Your task to perform on an android device: Open Google Chrome and open the bookmarks view Image 0: 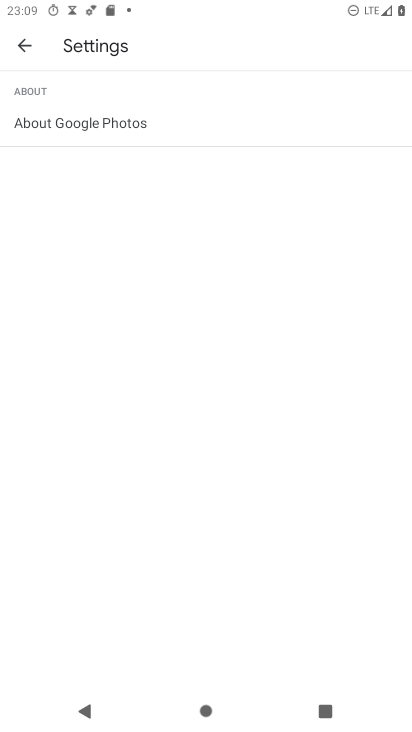
Step 0: press back button
Your task to perform on an android device: Open Google Chrome and open the bookmarks view Image 1: 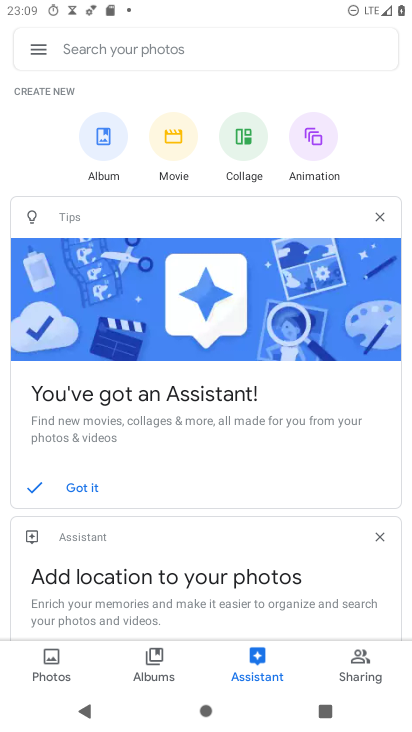
Step 1: press back button
Your task to perform on an android device: Open Google Chrome and open the bookmarks view Image 2: 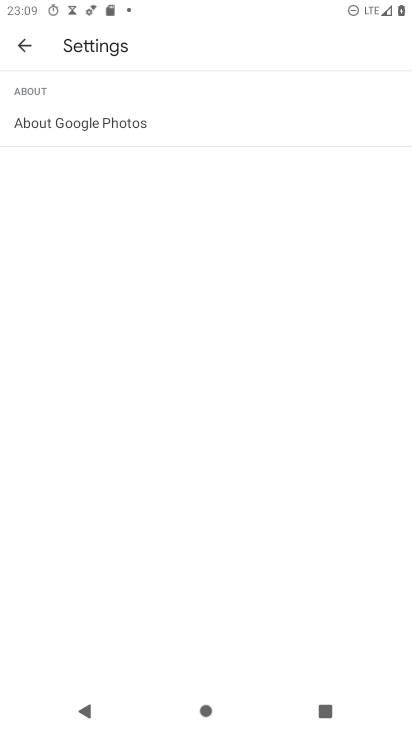
Step 2: press back button
Your task to perform on an android device: Open Google Chrome and open the bookmarks view Image 3: 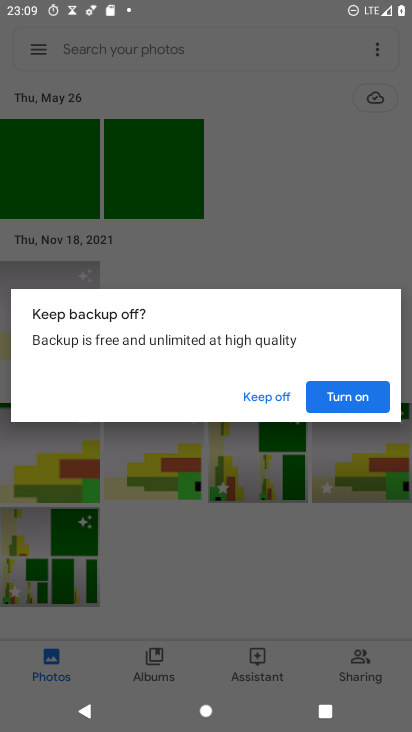
Step 3: press back button
Your task to perform on an android device: Open Google Chrome and open the bookmarks view Image 4: 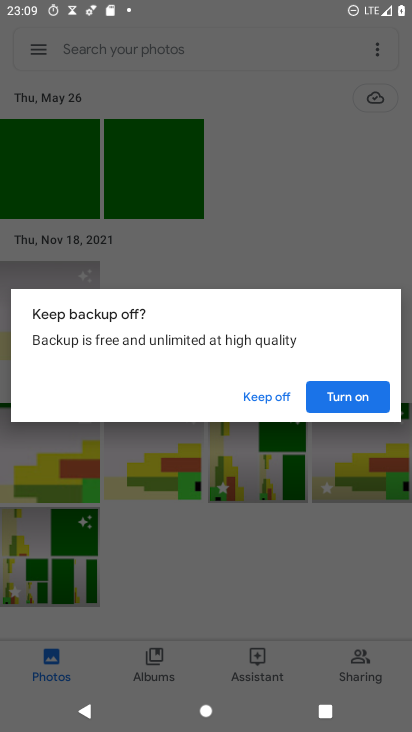
Step 4: press home button
Your task to perform on an android device: Open Google Chrome and open the bookmarks view Image 5: 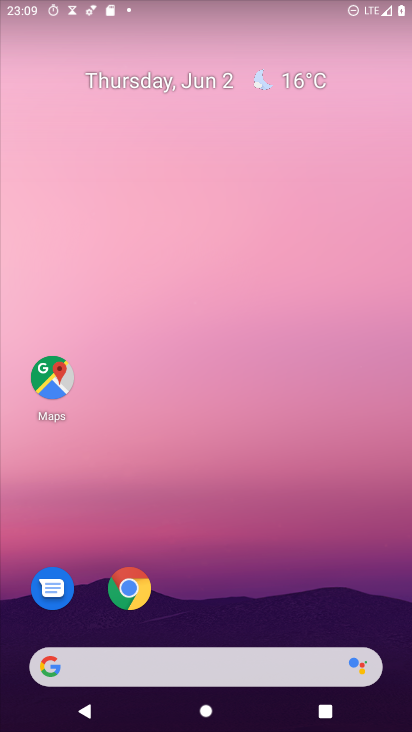
Step 5: click (118, 591)
Your task to perform on an android device: Open Google Chrome and open the bookmarks view Image 6: 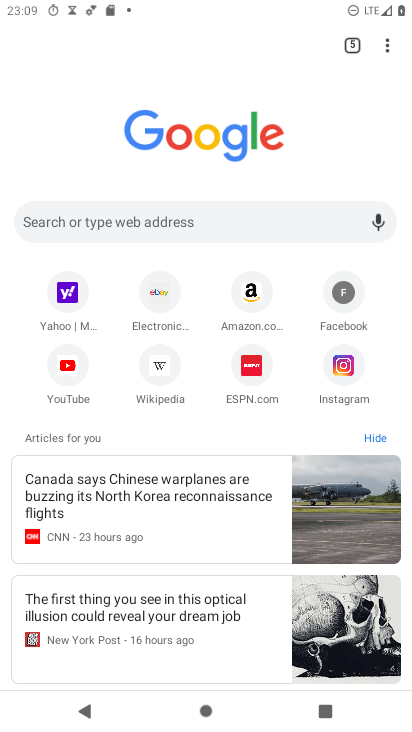
Step 6: task complete